Your task to perform on an android device: Open a new private window in the chrome app Image 0: 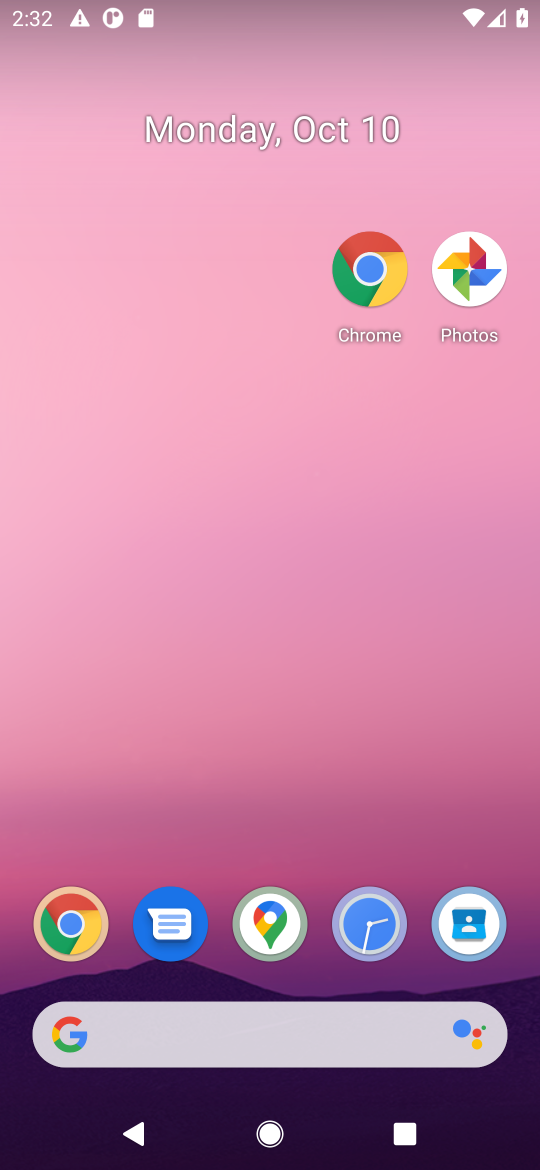
Step 0: drag from (218, 883) to (391, 21)
Your task to perform on an android device: Open a new private window in the chrome app Image 1: 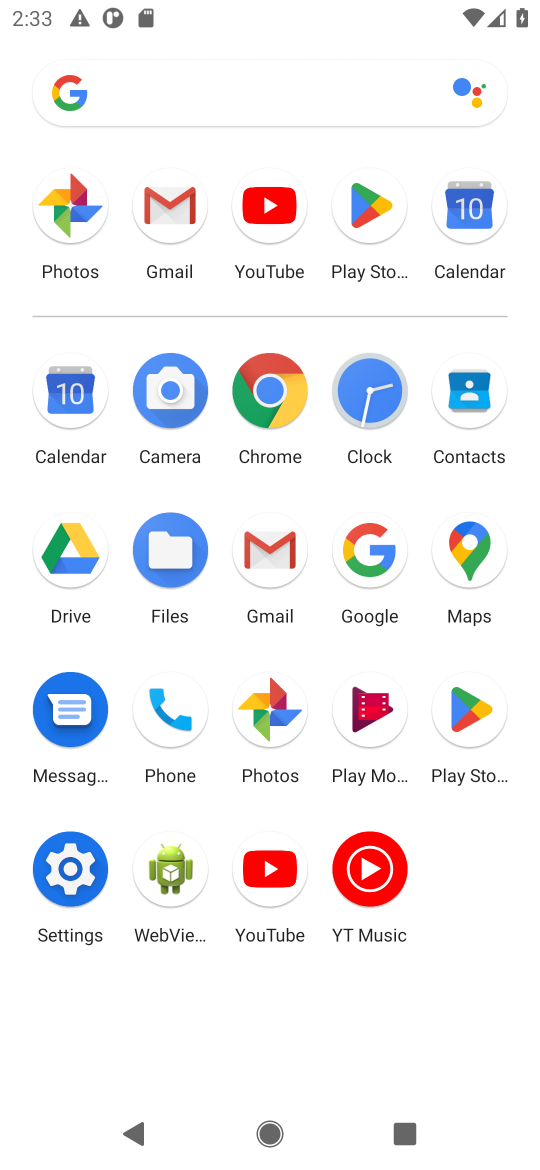
Step 1: click (264, 394)
Your task to perform on an android device: Open a new private window in the chrome app Image 2: 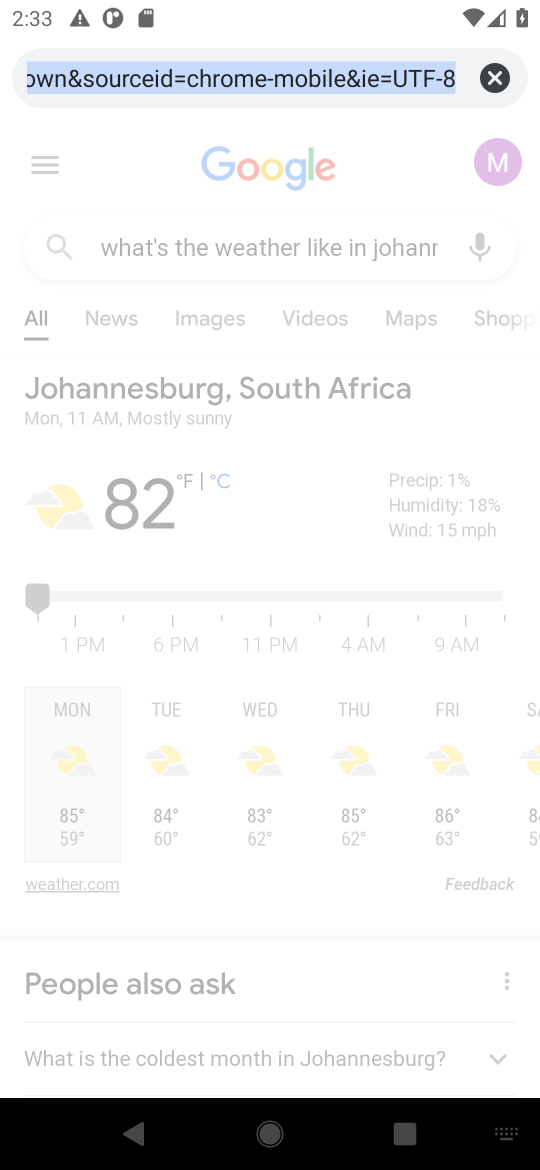
Step 2: press home button
Your task to perform on an android device: Open a new private window in the chrome app Image 3: 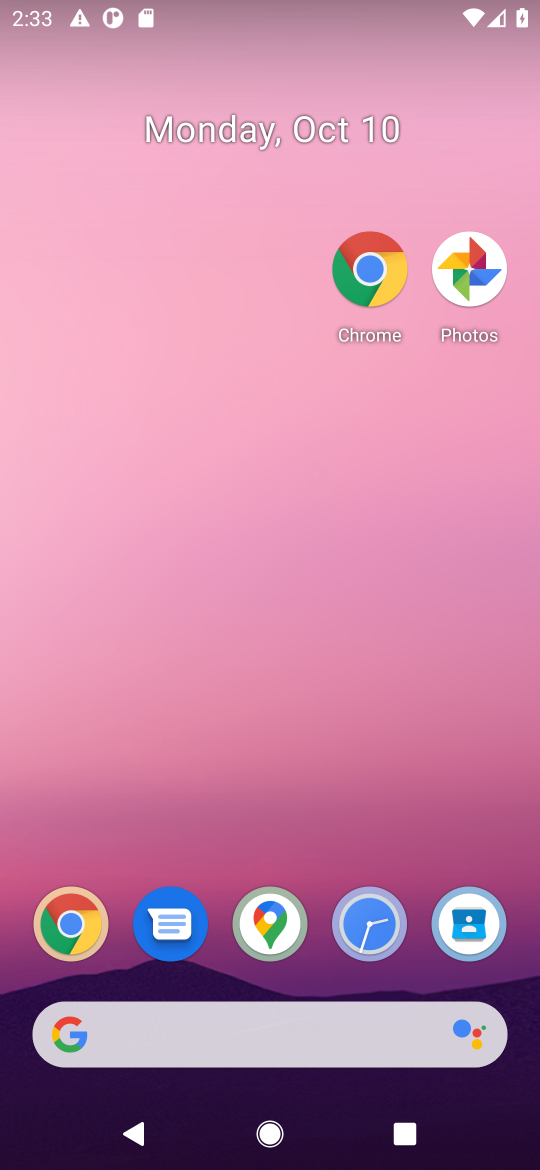
Step 3: drag from (392, 829) to (401, 10)
Your task to perform on an android device: Open a new private window in the chrome app Image 4: 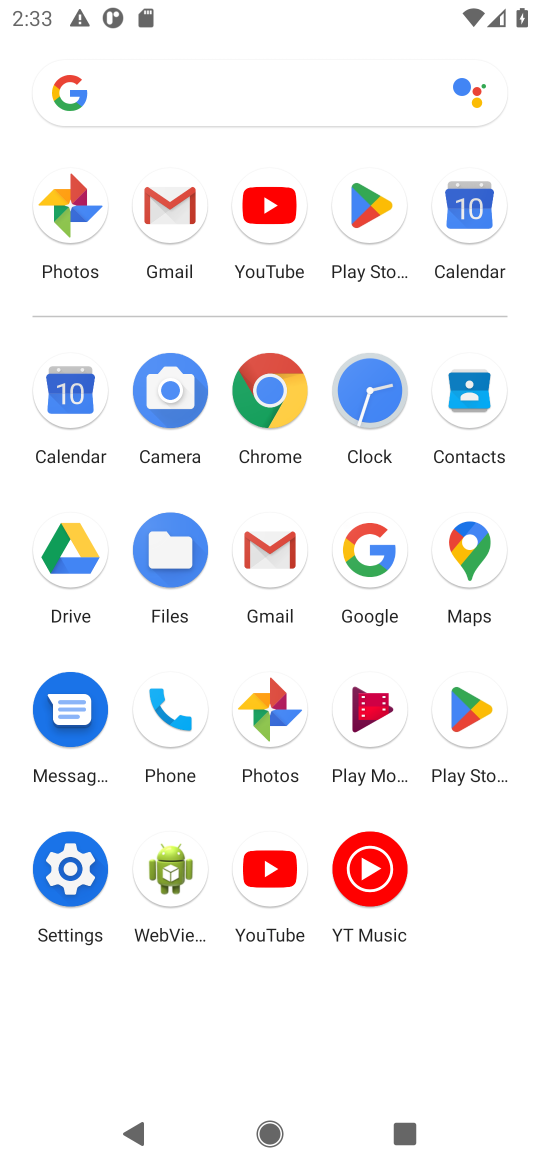
Step 4: click (277, 387)
Your task to perform on an android device: Open a new private window in the chrome app Image 5: 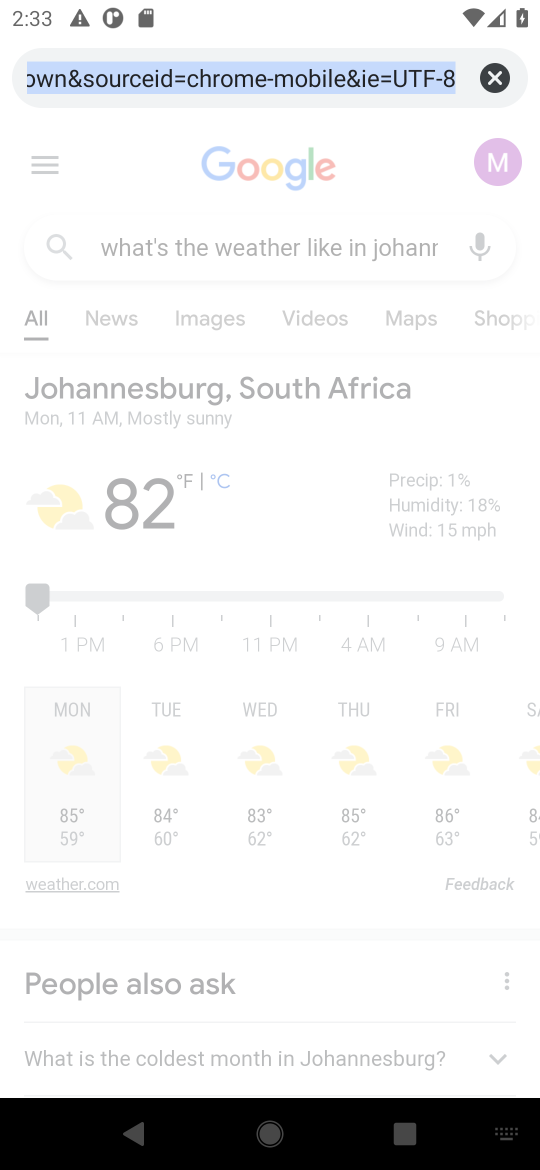
Step 5: click (498, 71)
Your task to perform on an android device: Open a new private window in the chrome app Image 6: 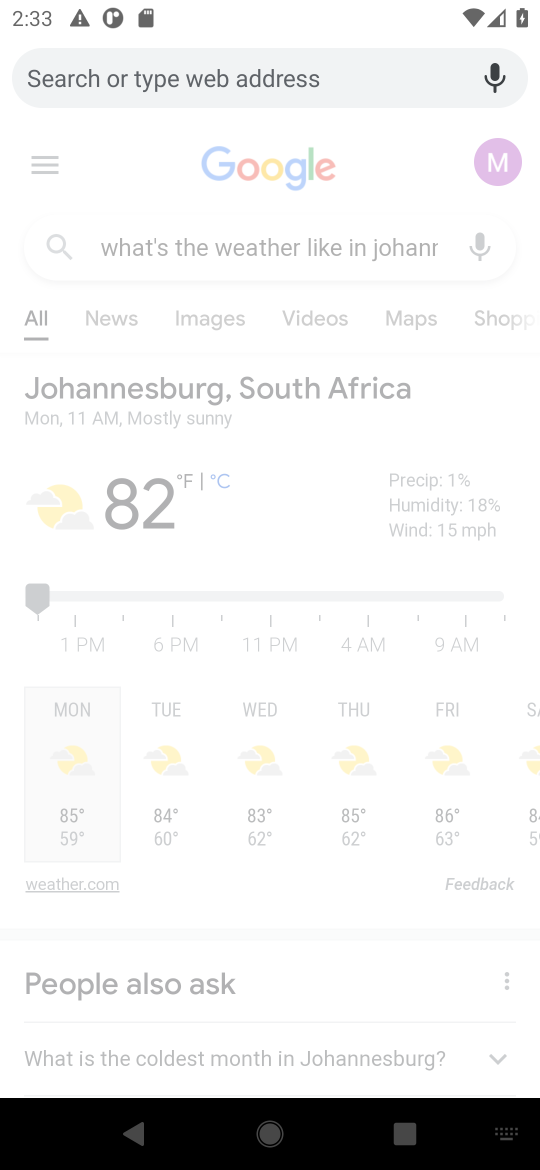
Step 6: click (424, 183)
Your task to perform on an android device: Open a new private window in the chrome app Image 7: 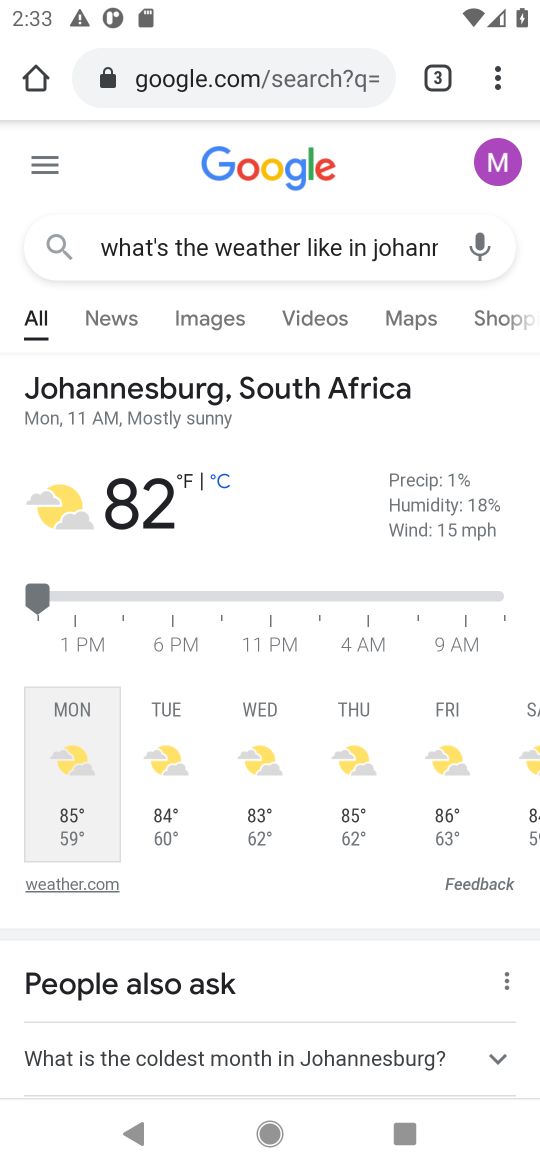
Step 7: task complete